Your task to perform on an android device: Open Youtube and go to "Your channel" Image 0: 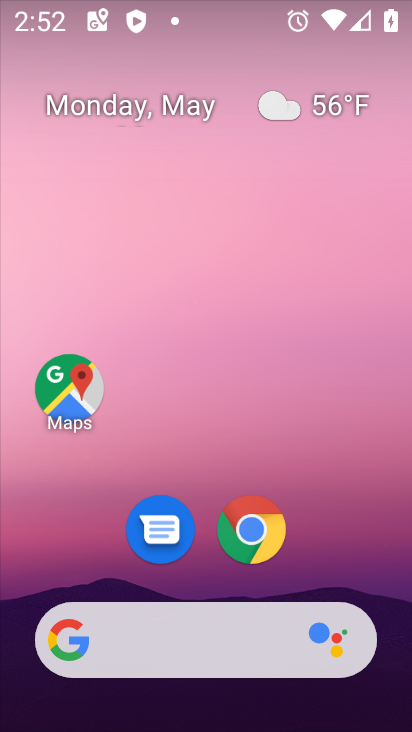
Step 0: drag from (316, 583) to (348, 135)
Your task to perform on an android device: Open Youtube and go to "Your channel" Image 1: 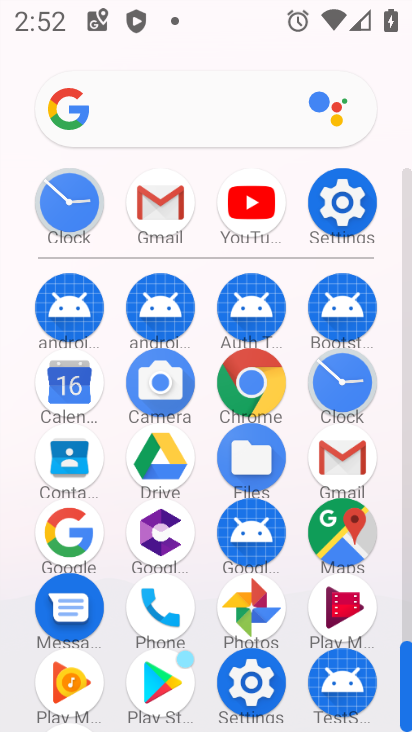
Step 1: click (246, 214)
Your task to perform on an android device: Open Youtube and go to "Your channel" Image 2: 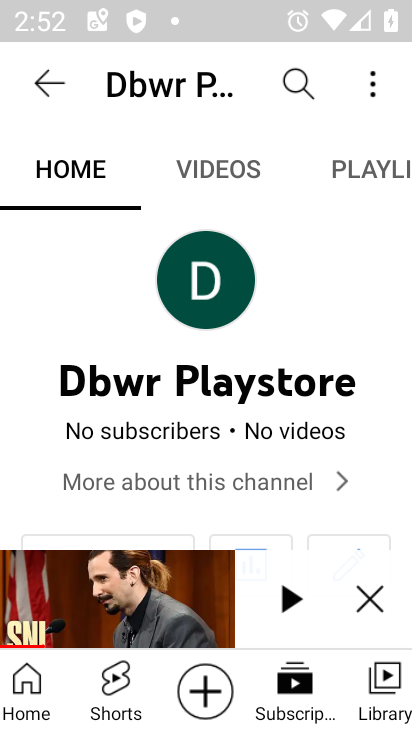
Step 2: task complete